Your task to perform on an android device: turn on javascript in the chrome app Image 0: 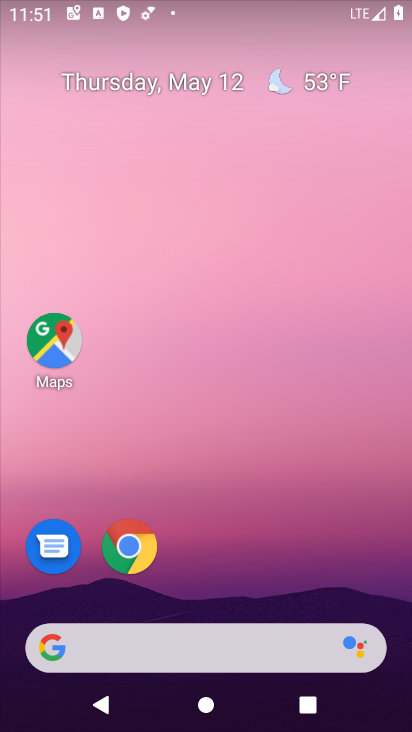
Step 0: drag from (260, 671) to (308, 220)
Your task to perform on an android device: turn on javascript in the chrome app Image 1: 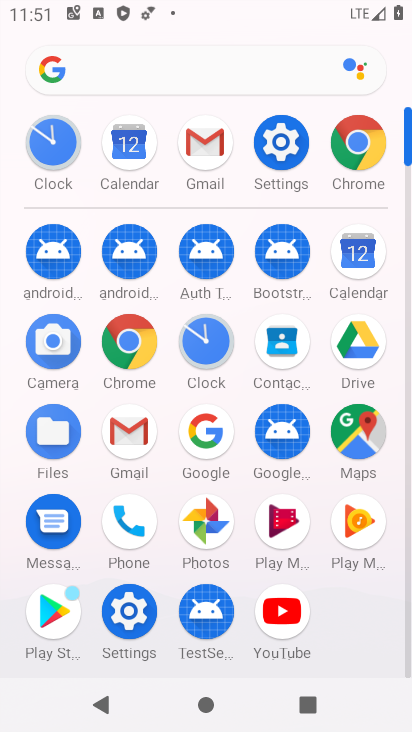
Step 1: click (127, 331)
Your task to perform on an android device: turn on javascript in the chrome app Image 2: 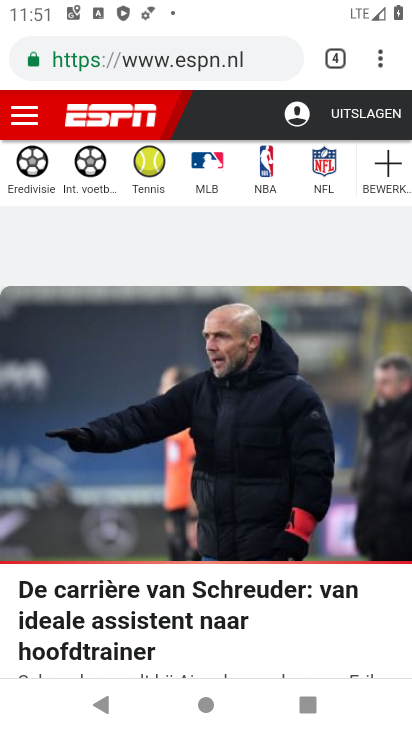
Step 2: click (381, 72)
Your task to perform on an android device: turn on javascript in the chrome app Image 3: 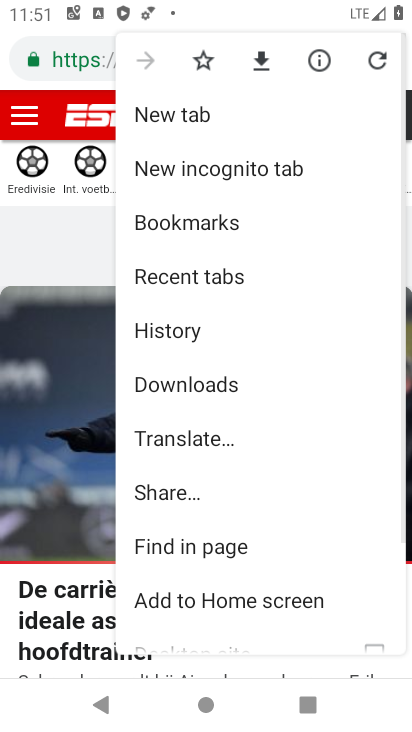
Step 3: drag from (198, 466) to (309, 261)
Your task to perform on an android device: turn on javascript in the chrome app Image 4: 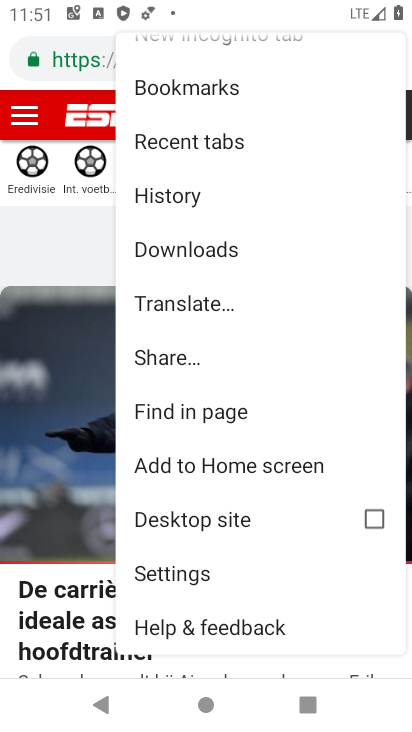
Step 4: click (162, 567)
Your task to perform on an android device: turn on javascript in the chrome app Image 5: 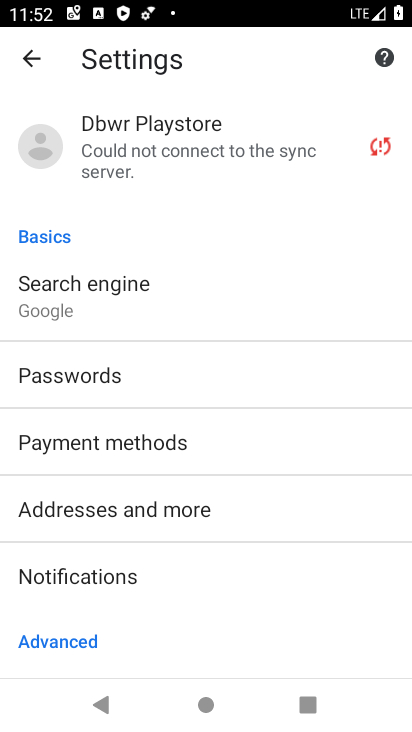
Step 5: drag from (113, 594) to (186, 376)
Your task to perform on an android device: turn on javascript in the chrome app Image 6: 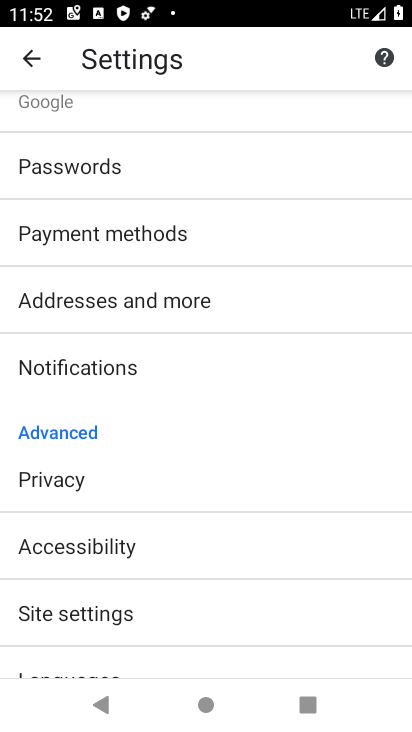
Step 6: click (79, 599)
Your task to perform on an android device: turn on javascript in the chrome app Image 7: 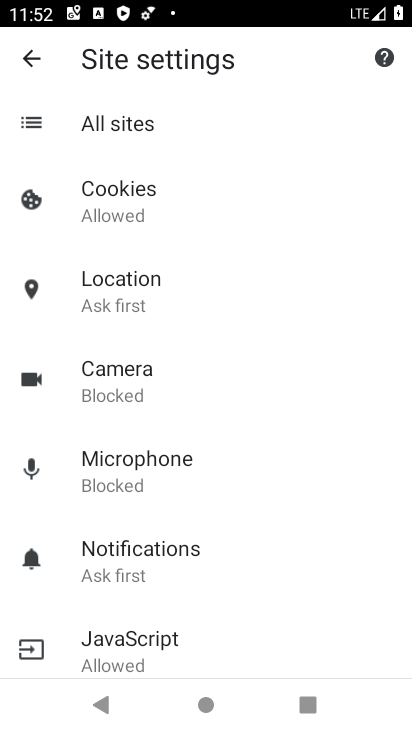
Step 7: click (96, 650)
Your task to perform on an android device: turn on javascript in the chrome app Image 8: 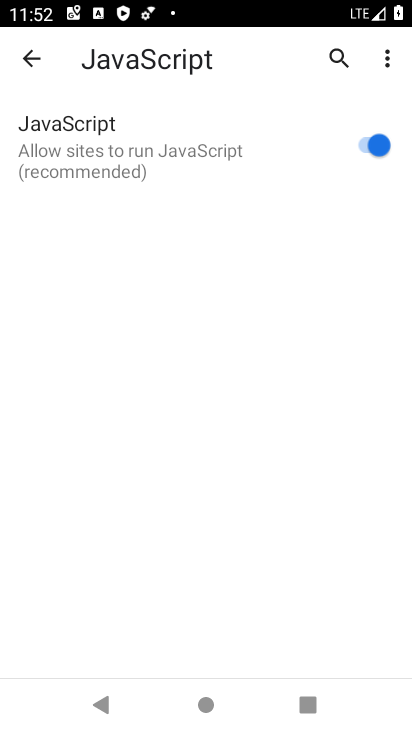
Step 8: click (335, 125)
Your task to perform on an android device: turn on javascript in the chrome app Image 9: 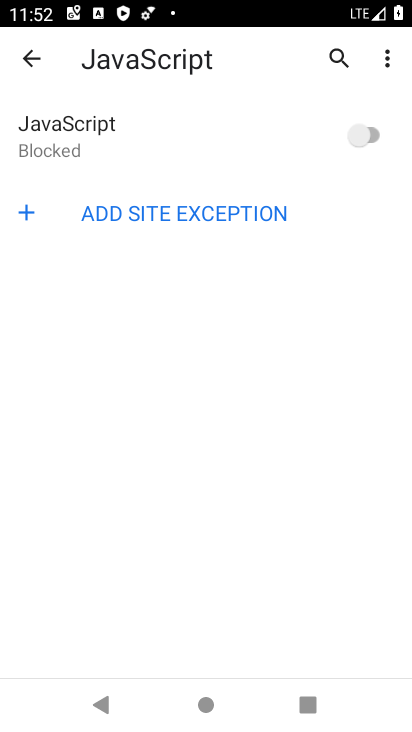
Step 9: click (325, 145)
Your task to perform on an android device: turn on javascript in the chrome app Image 10: 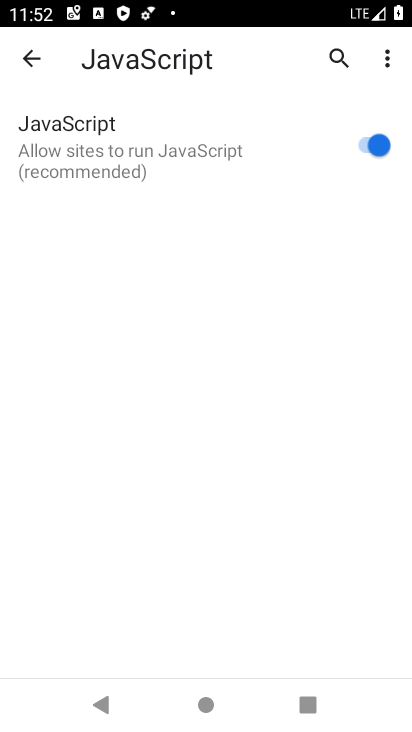
Step 10: task complete